Your task to perform on an android device: change notifications settings Image 0: 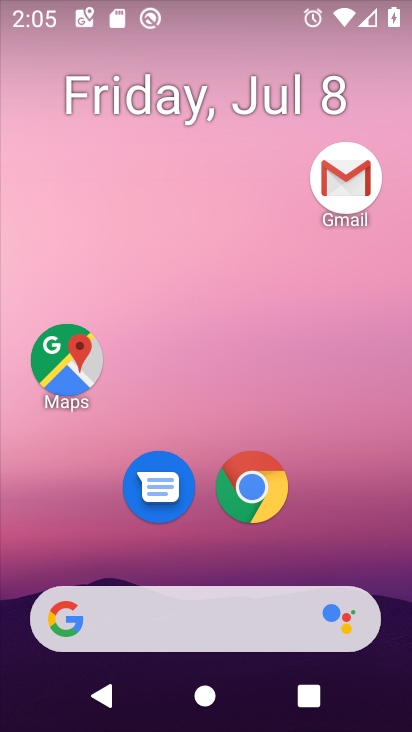
Step 0: drag from (369, 538) to (168, 715)
Your task to perform on an android device: change notifications settings Image 1: 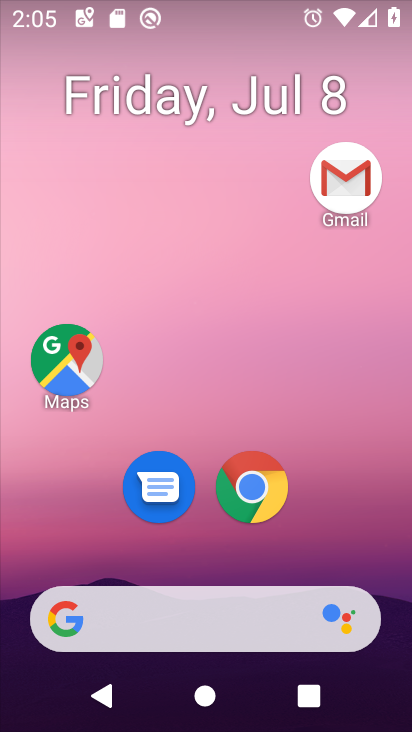
Step 1: drag from (361, 510) to (354, 58)
Your task to perform on an android device: change notifications settings Image 2: 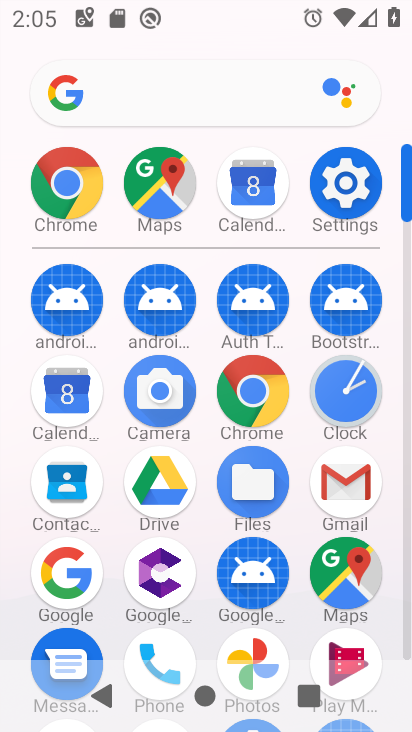
Step 2: click (355, 175)
Your task to perform on an android device: change notifications settings Image 3: 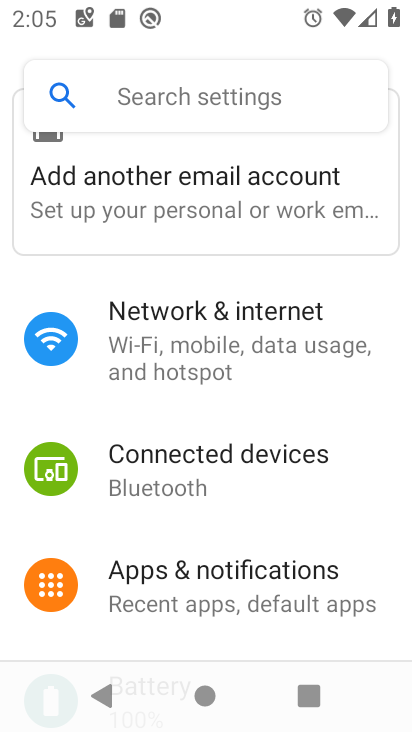
Step 3: drag from (361, 485) to (361, 405)
Your task to perform on an android device: change notifications settings Image 4: 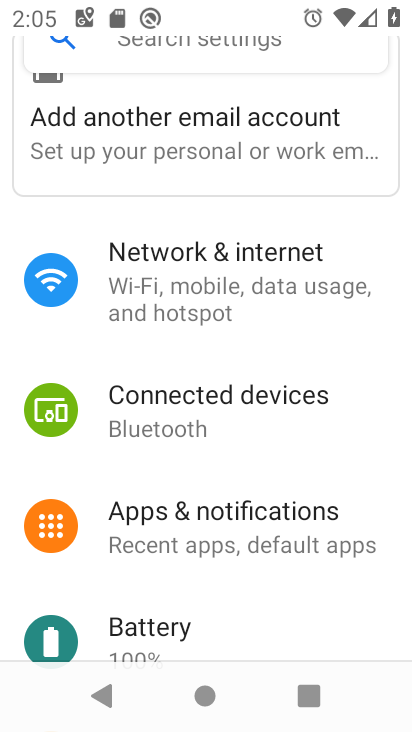
Step 4: drag from (368, 485) to (365, 399)
Your task to perform on an android device: change notifications settings Image 5: 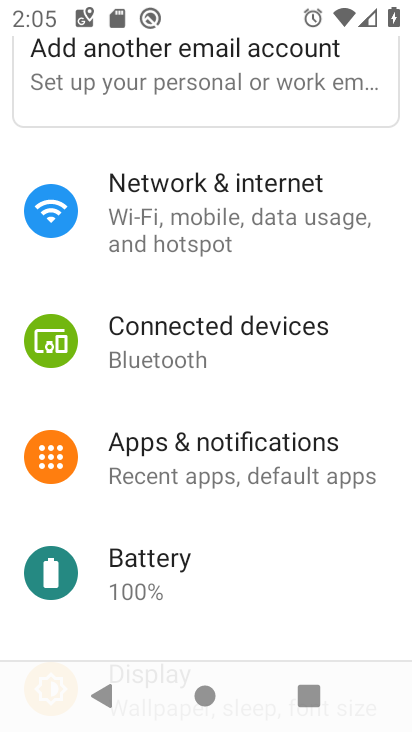
Step 5: click (304, 465)
Your task to perform on an android device: change notifications settings Image 6: 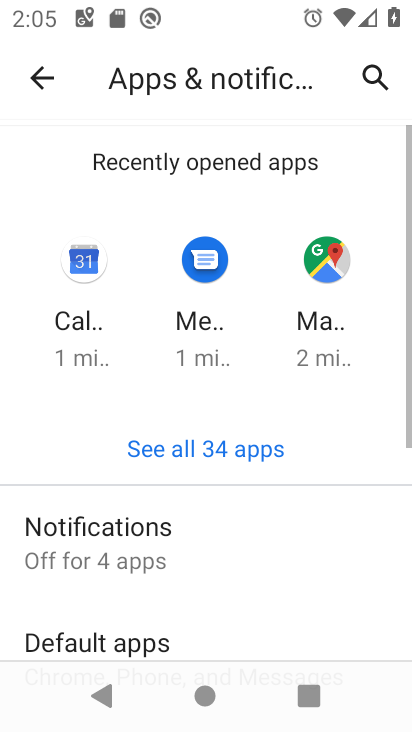
Step 6: drag from (297, 535) to (321, 411)
Your task to perform on an android device: change notifications settings Image 7: 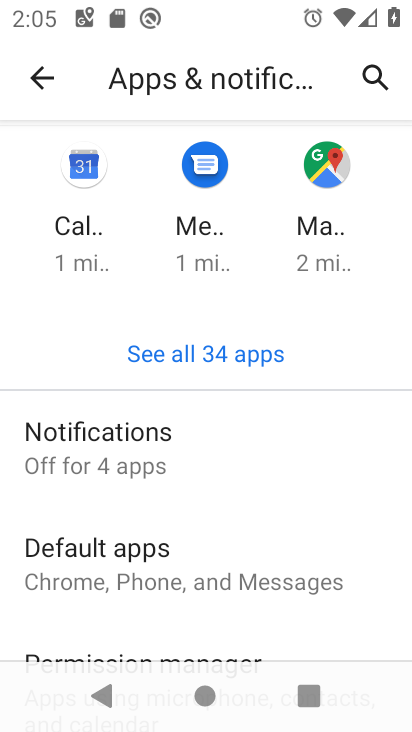
Step 7: drag from (323, 507) to (338, 419)
Your task to perform on an android device: change notifications settings Image 8: 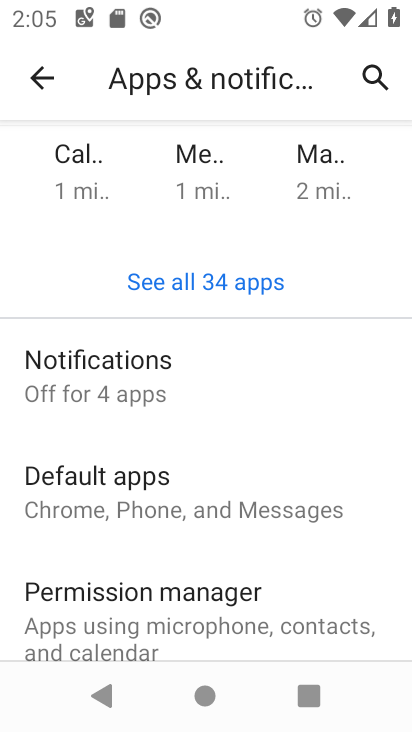
Step 8: click (178, 396)
Your task to perform on an android device: change notifications settings Image 9: 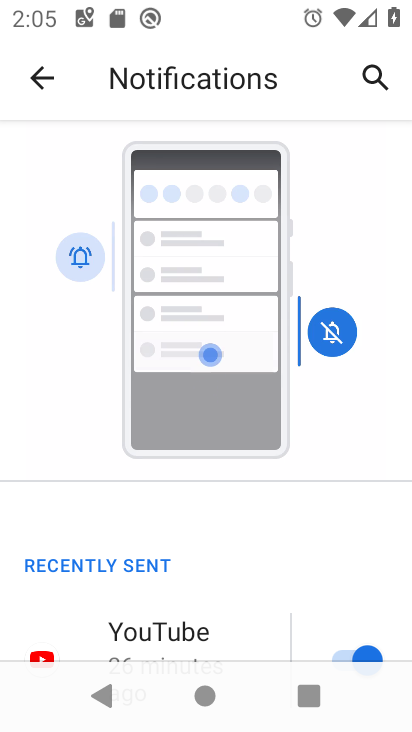
Step 9: drag from (275, 560) to (307, 396)
Your task to perform on an android device: change notifications settings Image 10: 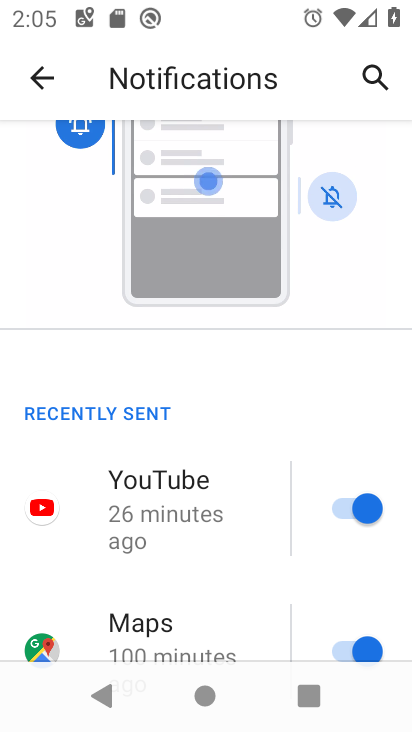
Step 10: drag from (243, 569) to (248, 441)
Your task to perform on an android device: change notifications settings Image 11: 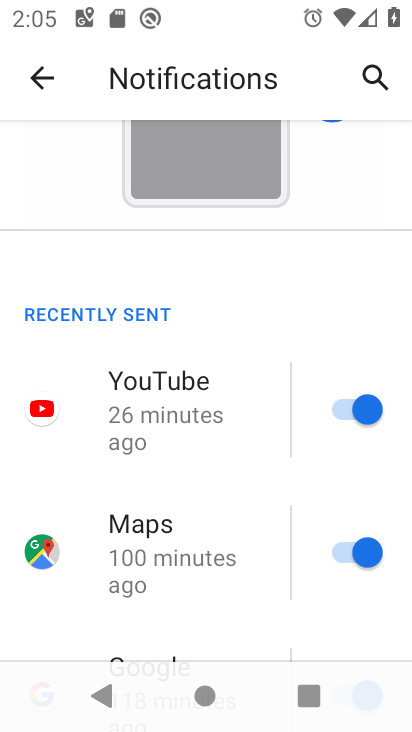
Step 11: drag from (269, 561) to (269, 463)
Your task to perform on an android device: change notifications settings Image 12: 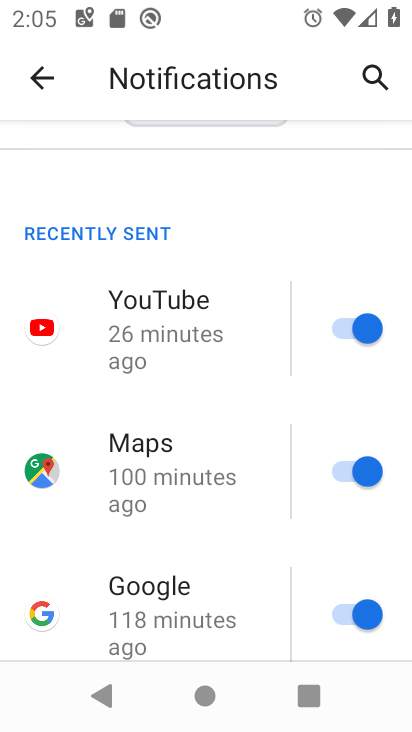
Step 12: click (370, 321)
Your task to perform on an android device: change notifications settings Image 13: 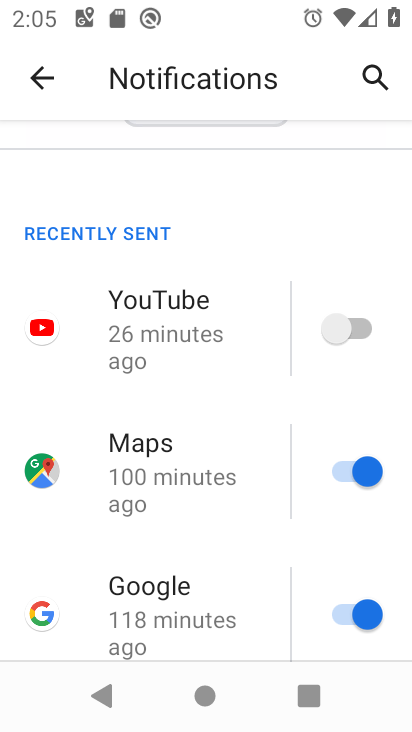
Step 13: click (362, 476)
Your task to perform on an android device: change notifications settings Image 14: 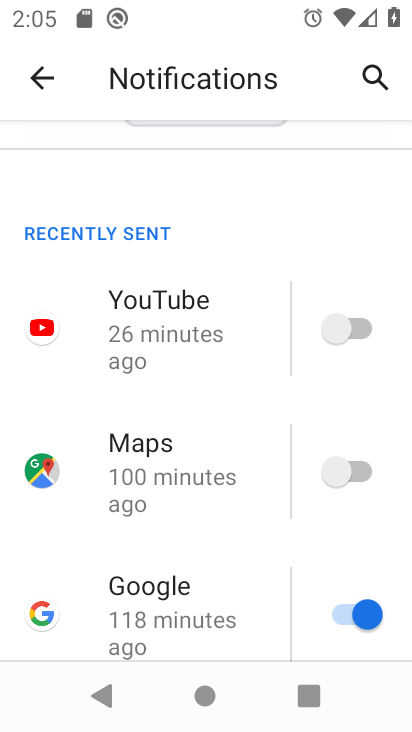
Step 14: click (350, 622)
Your task to perform on an android device: change notifications settings Image 15: 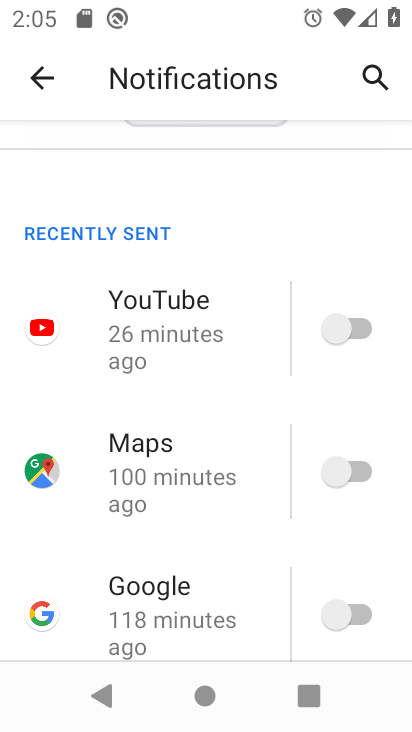
Step 15: task complete